Your task to perform on an android device: find snoozed emails in the gmail app Image 0: 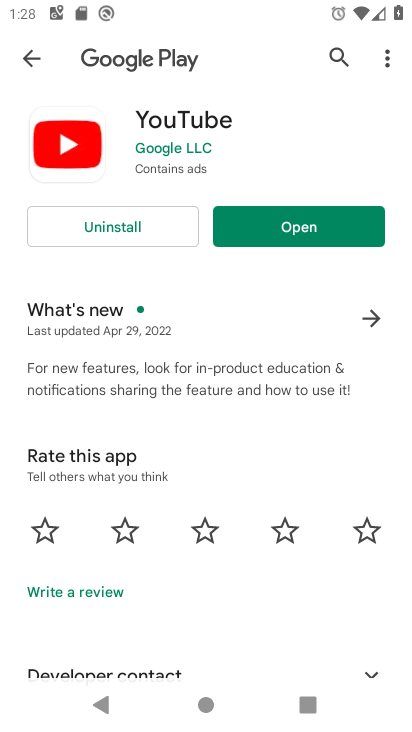
Step 0: press home button
Your task to perform on an android device: find snoozed emails in the gmail app Image 1: 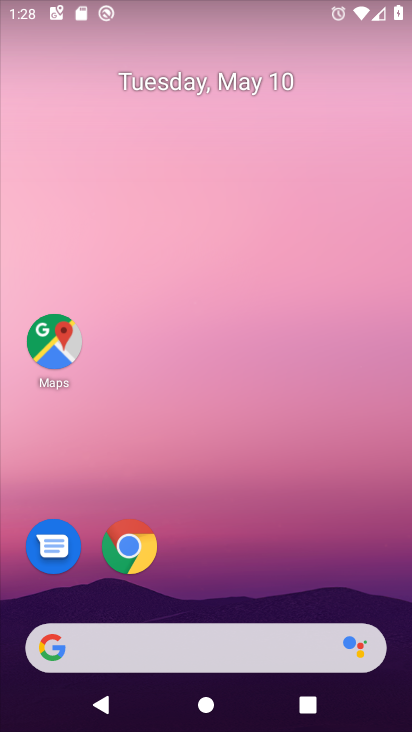
Step 1: drag from (264, 582) to (327, 211)
Your task to perform on an android device: find snoozed emails in the gmail app Image 2: 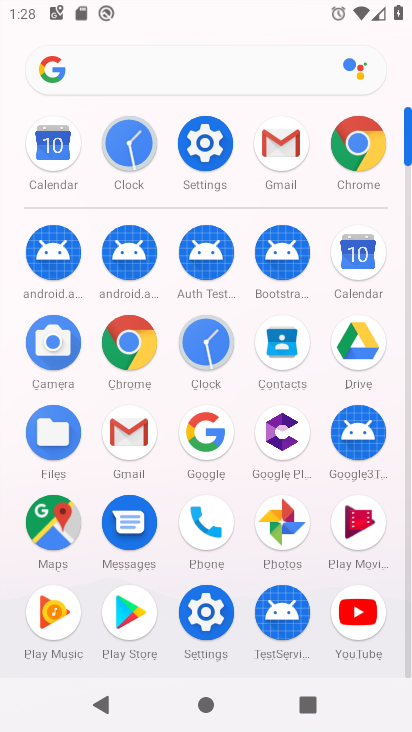
Step 2: click (292, 156)
Your task to perform on an android device: find snoozed emails in the gmail app Image 3: 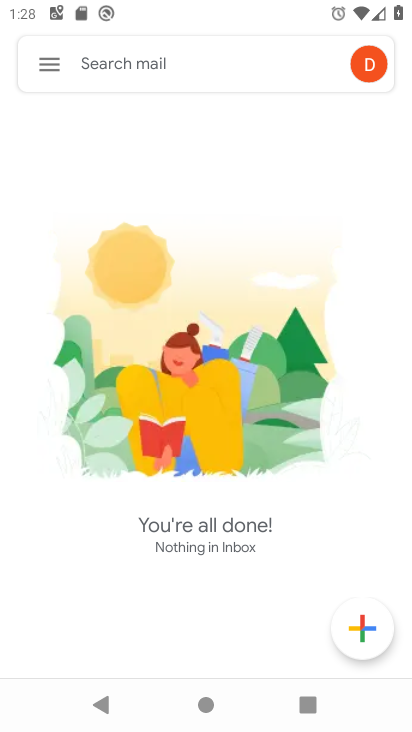
Step 3: click (61, 62)
Your task to perform on an android device: find snoozed emails in the gmail app Image 4: 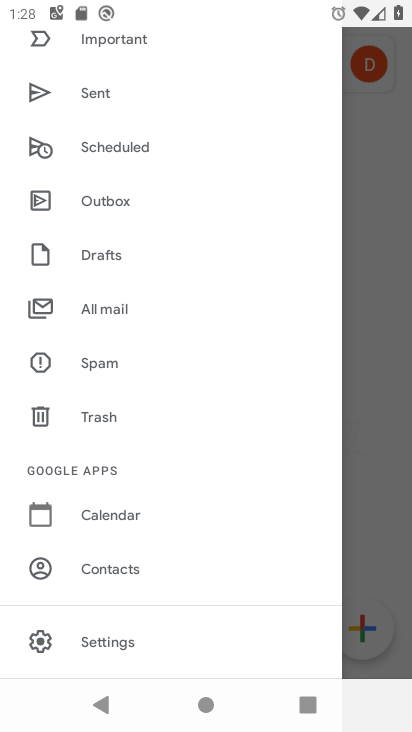
Step 4: click (109, 647)
Your task to perform on an android device: find snoozed emails in the gmail app Image 5: 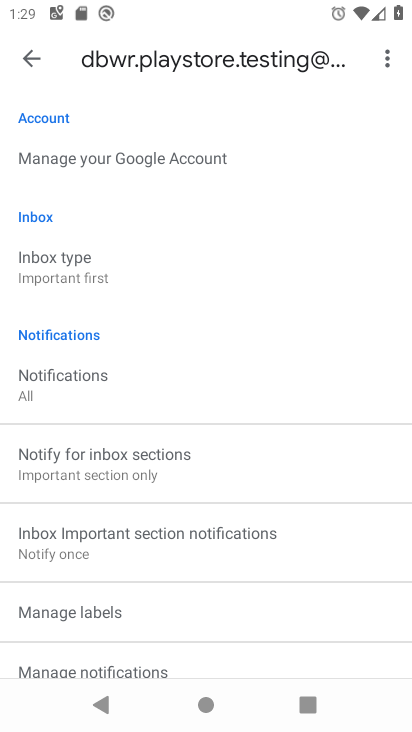
Step 5: drag from (178, 594) to (144, 271)
Your task to perform on an android device: find snoozed emails in the gmail app Image 6: 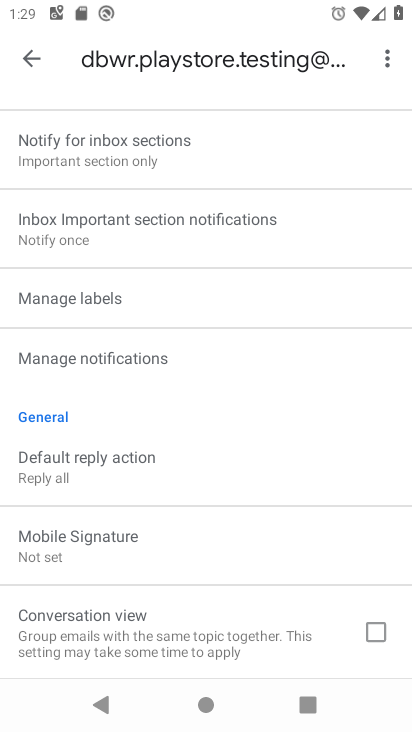
Step 6: click (33, 67)
Your task to perform on an android device: find snoozed emails in the gmail app Image 7: 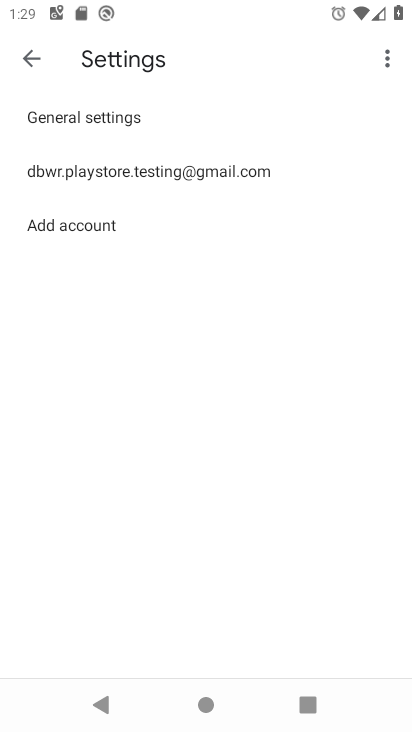
Step 7: click (33, 67)
Your task to perform on an android device: find snoozed emails in the gmail app Image 8: 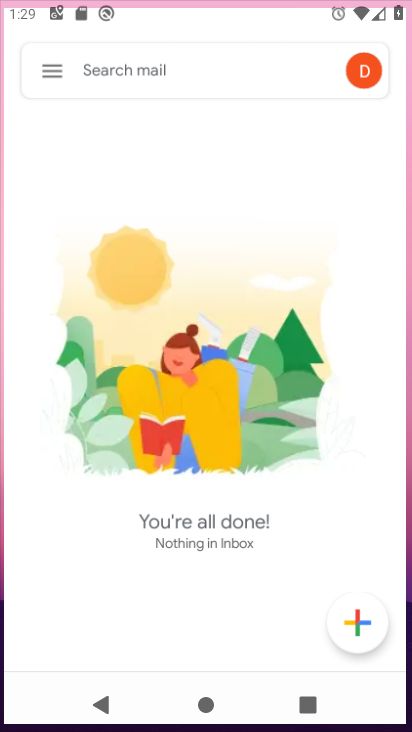
Step 8: click (33, 67)
Your task to perform on an android device: find snoozed emails in the gmail app Image 9: 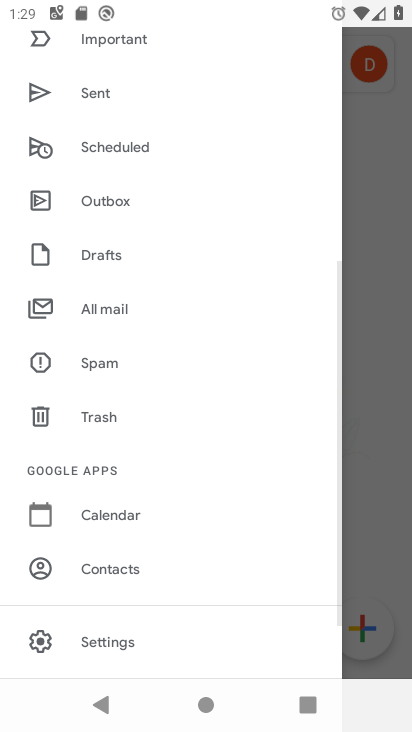
Step 9: drag from (121, 203) to (126, 618)
Your task to perform on an android device: find snoozed emails in the gmail app Image 10: 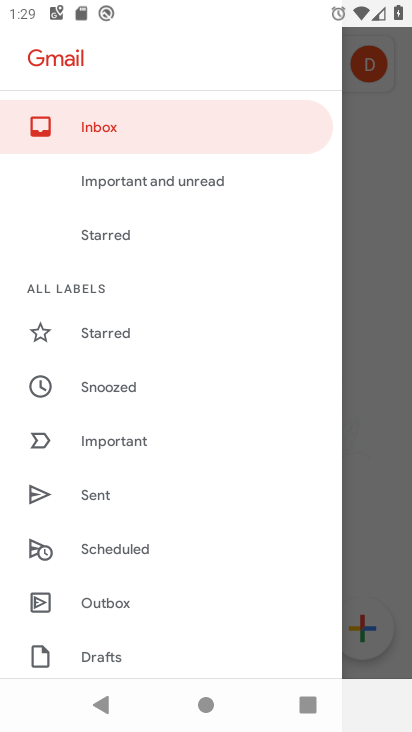
Step 10: drag from (144, 342) to (150, 461)
Your task to perform on an android device: find snoozed emails in the gmail app Image 11: 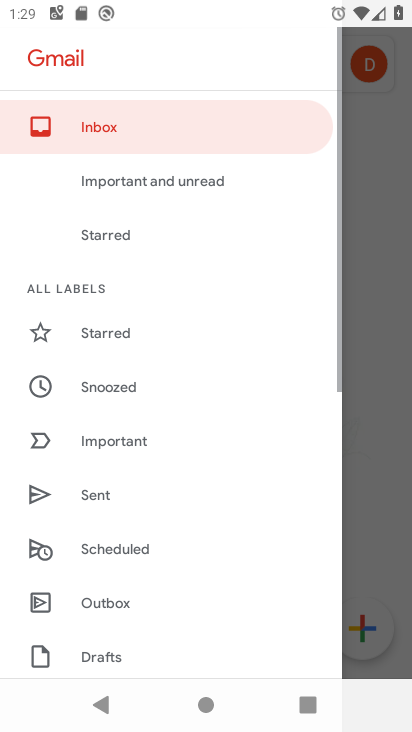
Step 11: click (132, 391)
Your task to perform on an android device: find snoozed emails in the gmail app Image 12: 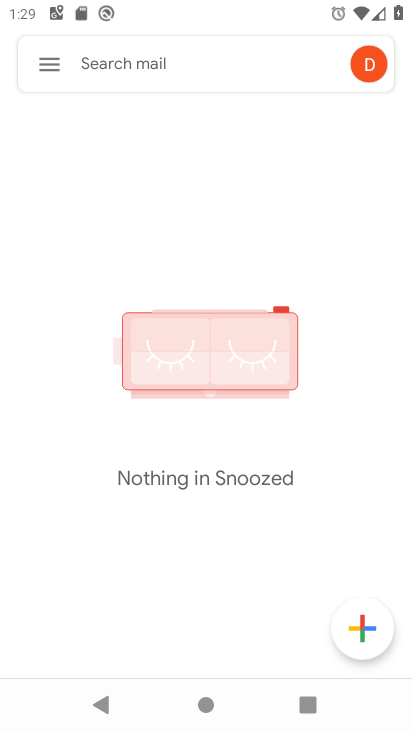
Step 12: task complete